Your task to perform on an android device: change keyboard looks Image 0: 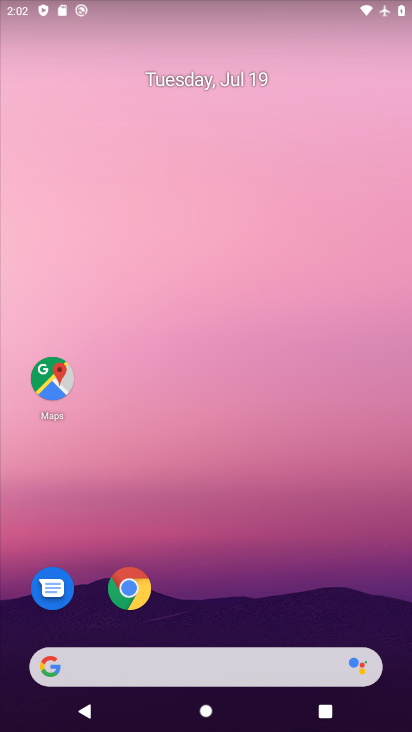
Step 0: drag from (238, 622) to (402, 426)
Your task to perform on an android device: change keyboard looks Image 1: 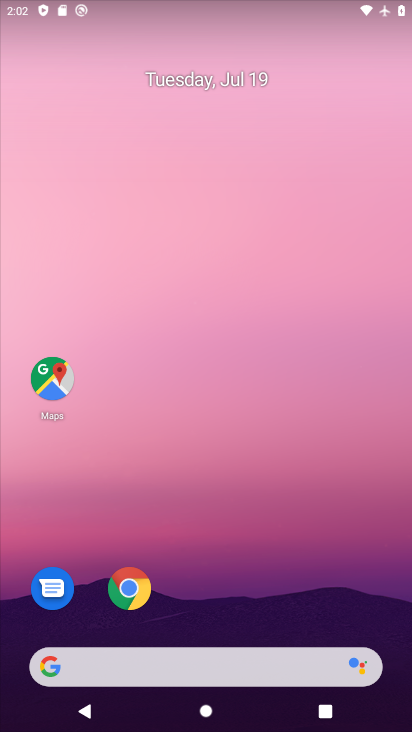
Step 1: drag from (250, 629) to (223, 118)
Your task to perform on an android device: change keyboard looks Image 2: 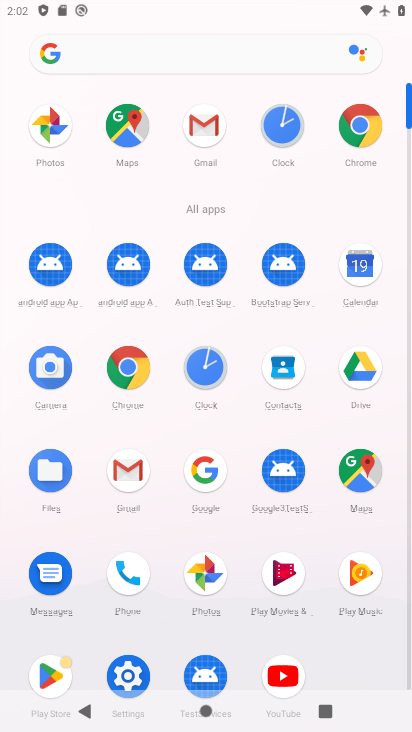
Step 2: click (134, 671)
Your task to perform on an android device: change keyboard looks Image 3: 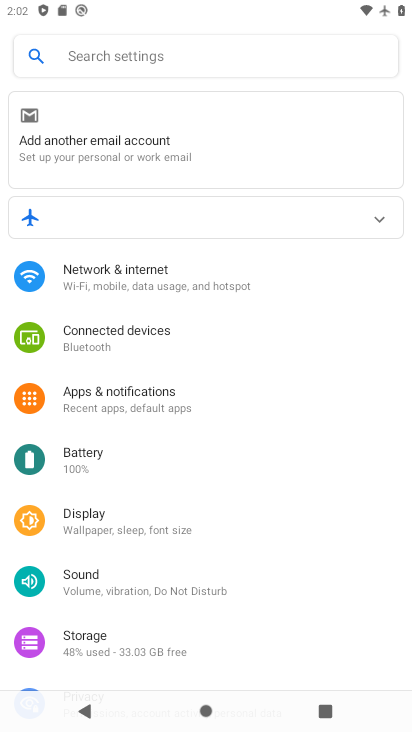
Step 3: drag from (298, 621) to (238, 99)
Your task to perform on an android device: change keyboard looks Image 4: 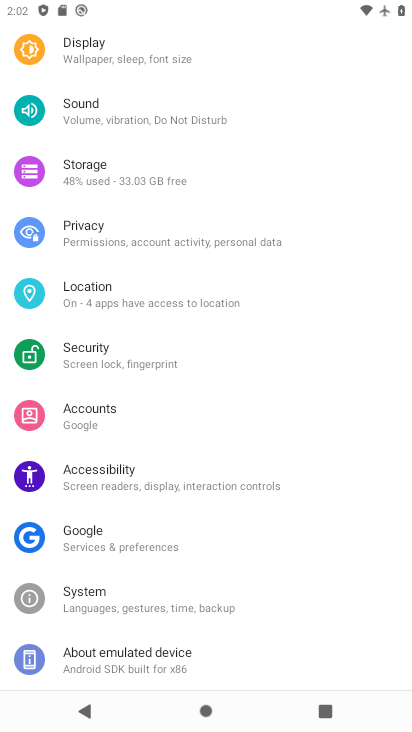
Step 4: click (70, 605)
Your task to perform on an android device: change keyboard looks Image 5: 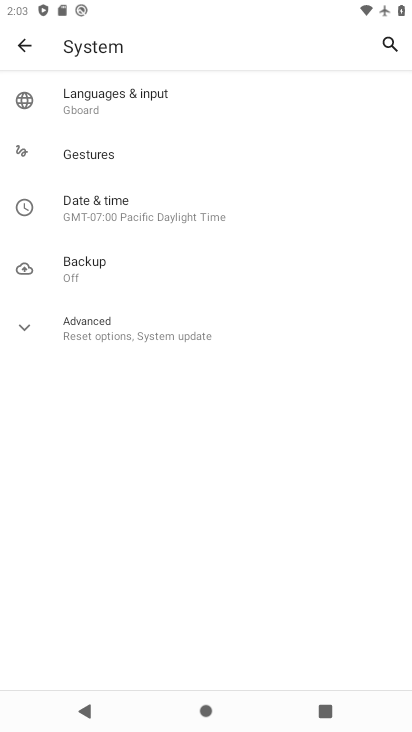
Step 5: click (103, 97)
Your task to perform on an android device: change keyboard looks Image 6: 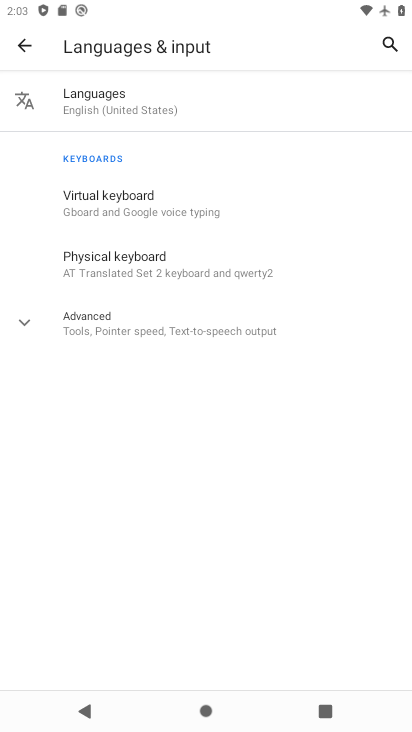
Step 6: click (125, 201)
Your task to perform on an android device: change keyboard looks Image 7: 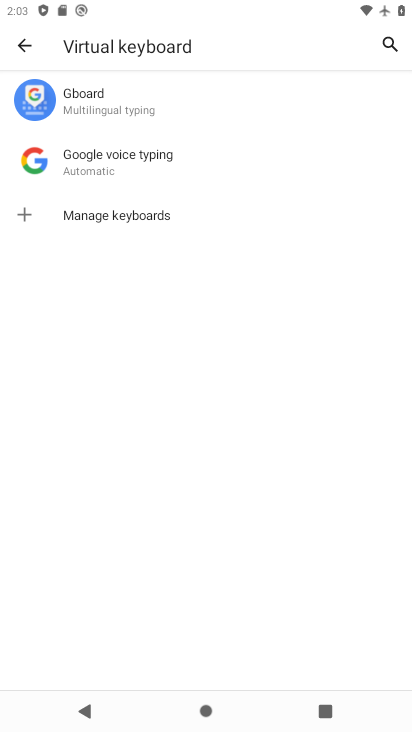
Step 7: click (85, 112)
Your task to perform on an android device: change keyboard looks Image 8: 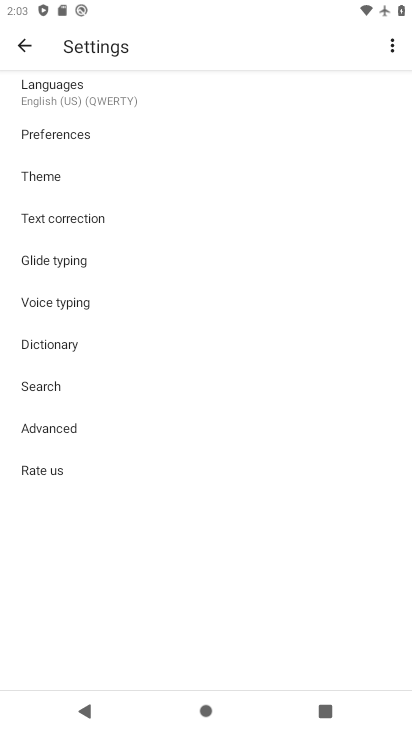
Step 8: click (34, 179)
Your task to perform on an android device: change keyboard looks Image 9: 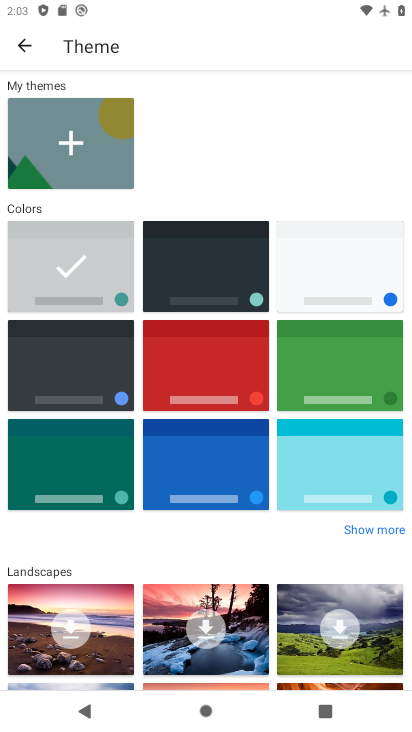
Step 9: click (219, 460)
Your task to perform on an android device: change keyboard looks Image 10: 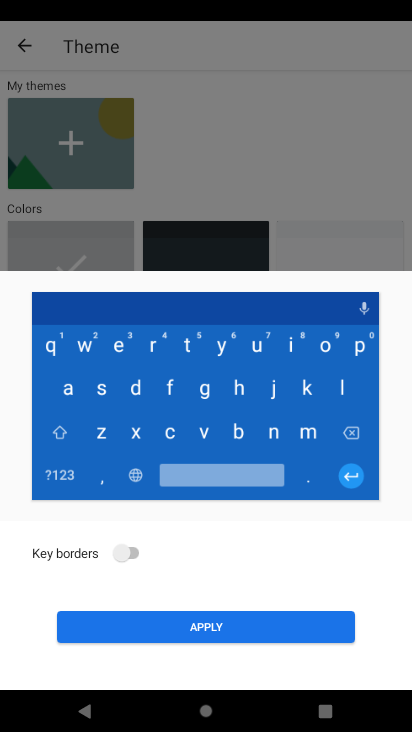
Step 10: click (156, 634)
Your task to perform on an android device: change keyboard looks Image 11: 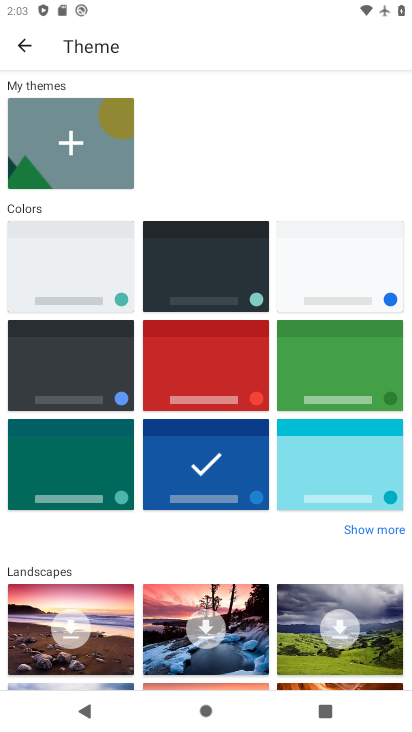
Step 11: task complete